Your task to perform on an android device: open app "Roku - Official Remote Control" (install if not already installed) and enter user name: "autumnal@gmail.com" and password: "stuffing" Image 0: 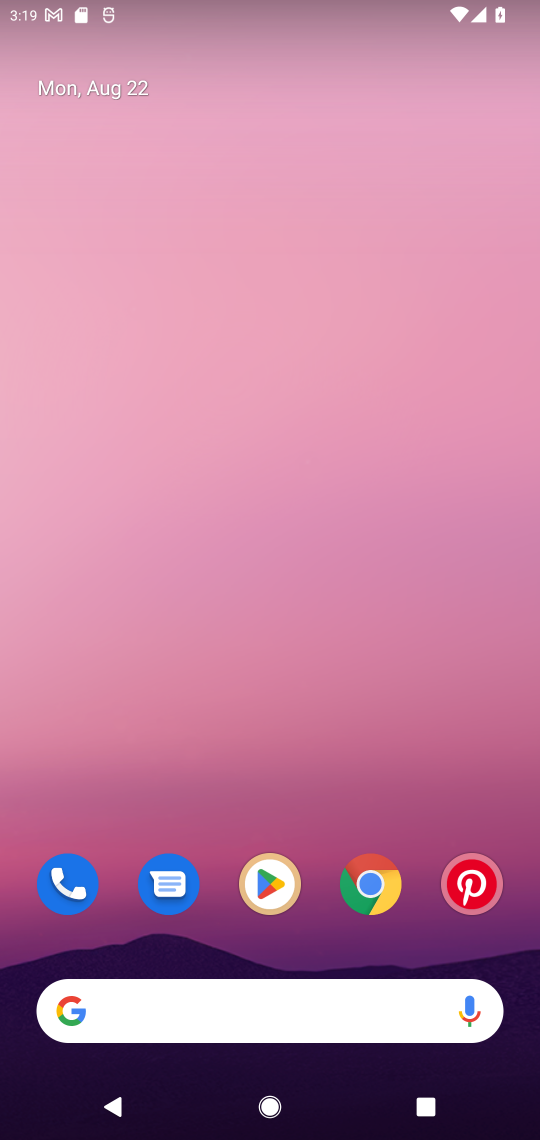
Step 0: click (267, 900)
Your task to perform on an android device: open app "Roku - Official Remote Control" (install if not already installed) and enter user name: "autumnal@gmail.com" and password: "stuffing" Image 1: 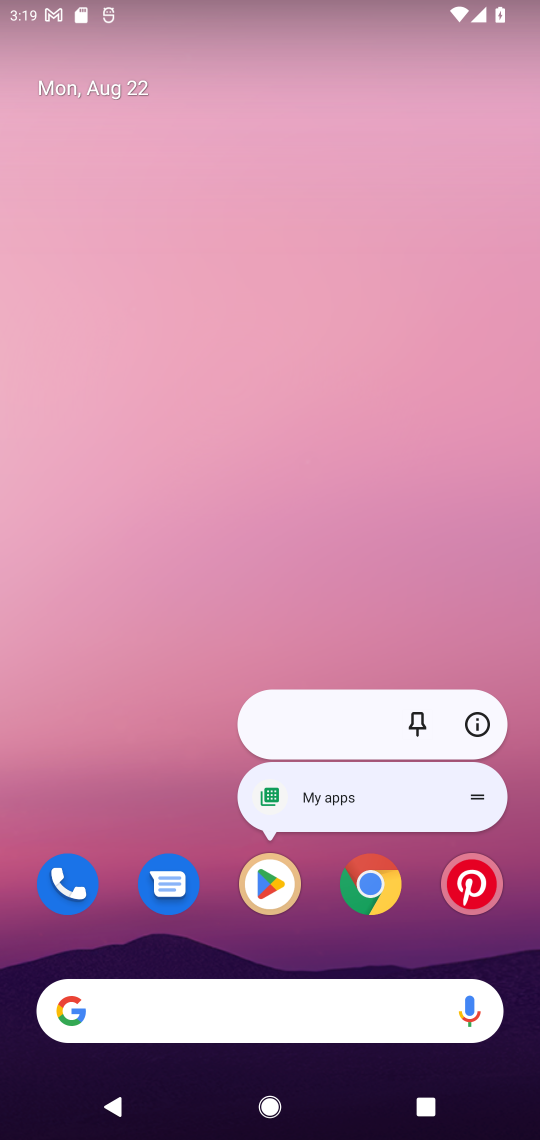
Step 1: click (264, 906)
Your task to perform on an android device: open app "Roku - Official Remote Control" (install if not already installed) and enter user name: "autumnal@gmail.com" and password: "stuffing" Image 2: 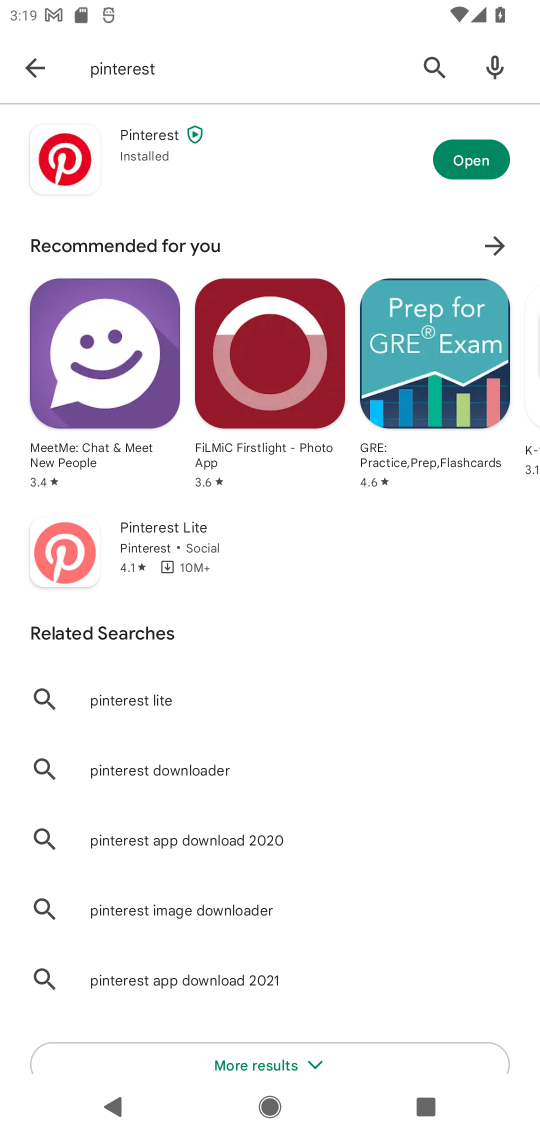
Step 2: click (183, 58)
Your task to perform on an android device: open app "Roku - Official Remote Control" (install if not already installed) and enter user name: "autumnal@gmail.com" and password: "stuffing" Image 3: 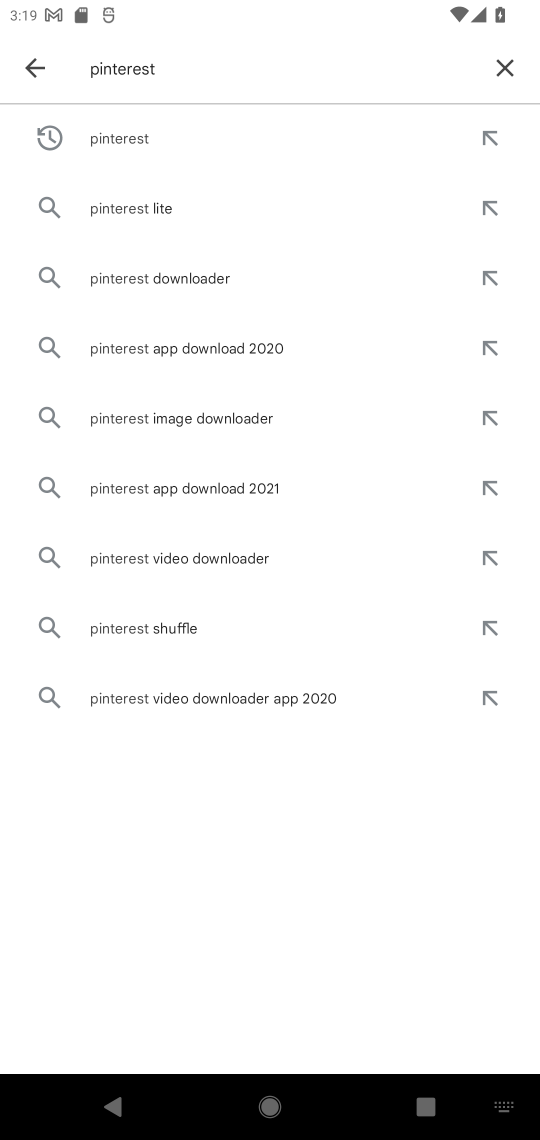
Step 3: click (498, 67)
Your task to perform on an android device: open app "Roku - Official Remote Control" (install if not already installed) and enter user name: "autumnal@gmail.com" and password: "stuffing" Image 4: 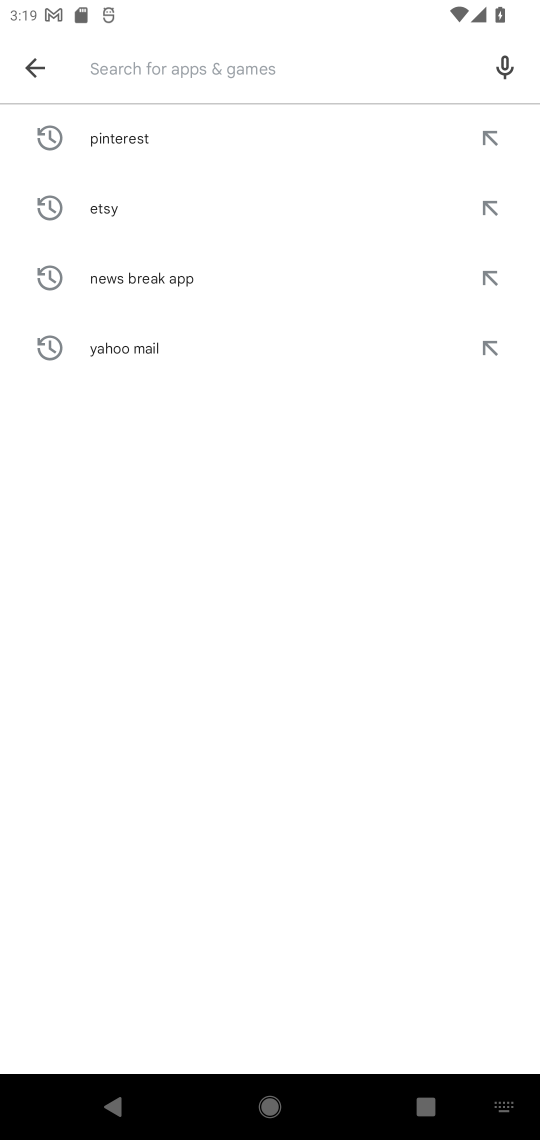
Step 4: type "Roku"
Your task to perform on an android device: open app "Roku - Official Remote Control" (install if not already installed) and enter user name: "autumnal@gmail.com" and password: "stuffing" Image 5: 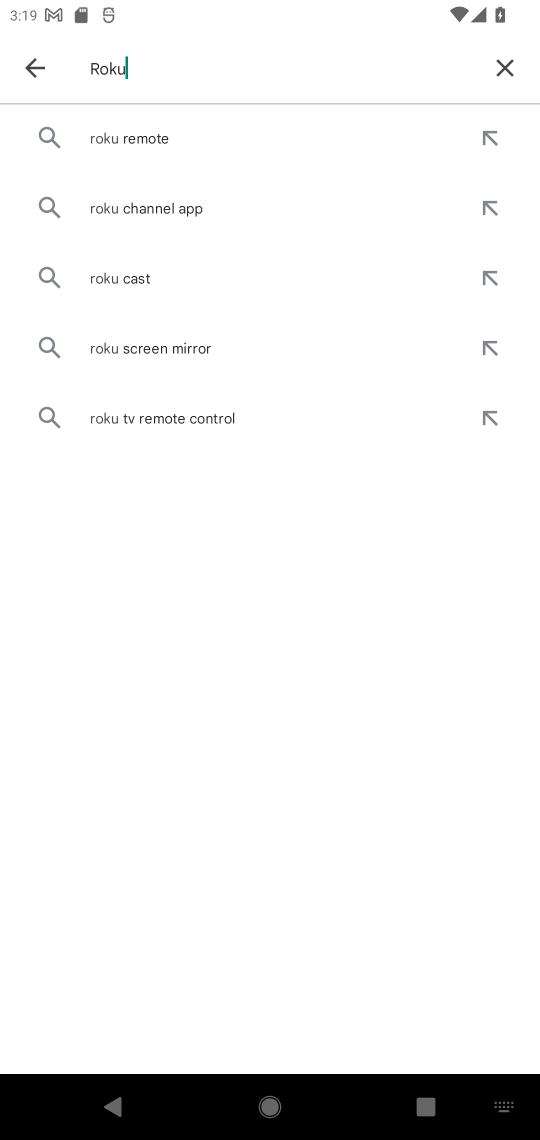
Step 5: click (161, 134)
Your task to perform on an android device: open app "Roku - Official Remote Control" (install if not already installed) and enter user name: "autumnal@gmail.com" and password: "stuffing" Image 6: 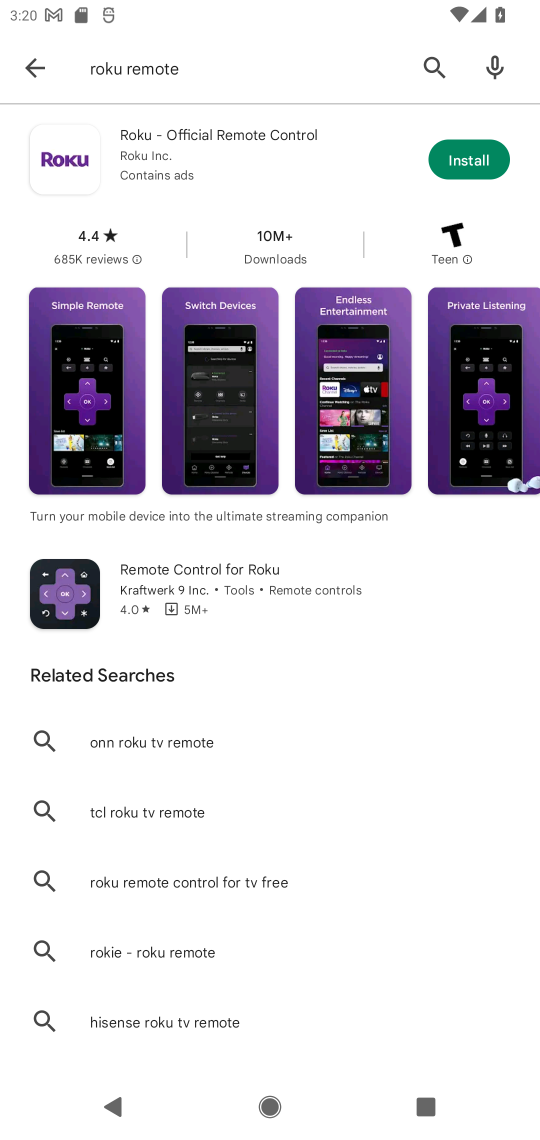
Step 6: click (470, 158)
Your task to perform on an android device: open app "Roku - Official Remote Control" (install if not already installed) and enter user name: "autumnal@gmail.com" and password: "stuffing" Image 7: 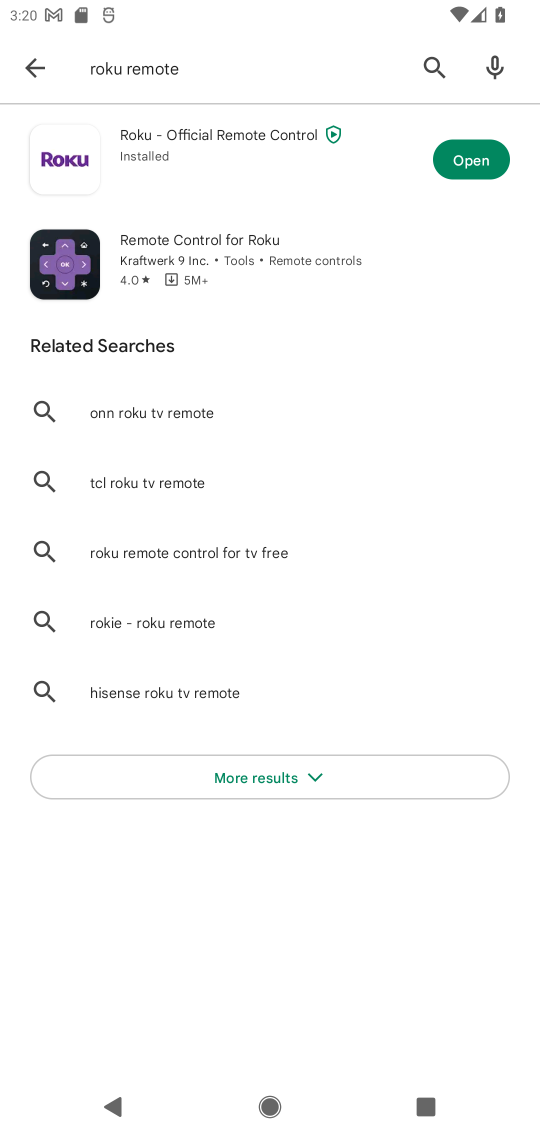
Step 7: click (456, 157)
Your task to perform on an android device: open app "Roku - Official Remote Control" (install if not already installed) and enter user name: "autumnal@gmail.com" and password: "stuffing" Image 8: 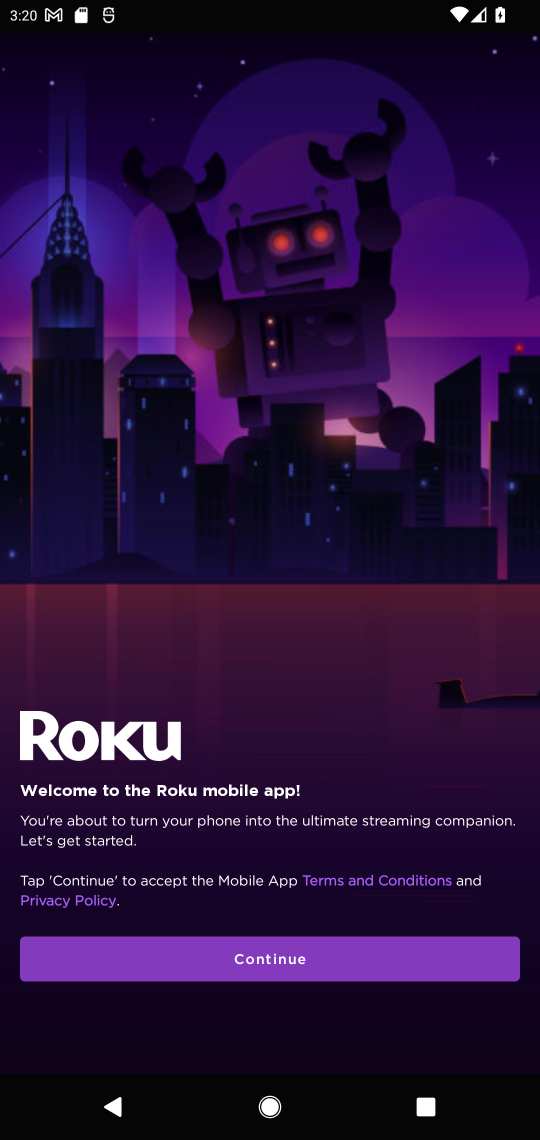
Step 8: click (324, 963)
Your task to perform on an android device: open app "Roku - Official Remote Control" (install if not already installed) and enter user name: "autumnal@gmail.com" and password: "stuffing" Image 9: 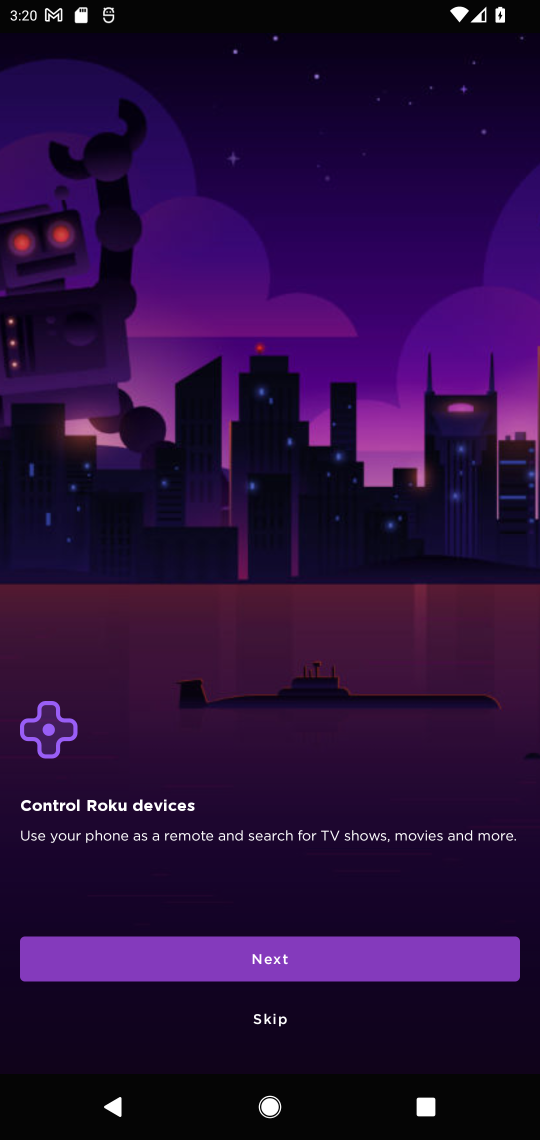
Step 9: click (331, 965)
Your task to perform on an android device: open app "Roku - Official Remote Control" (install if not already installed) and enter user name: "autumnal@gmail.com" and password: "stuffing" Image 10: 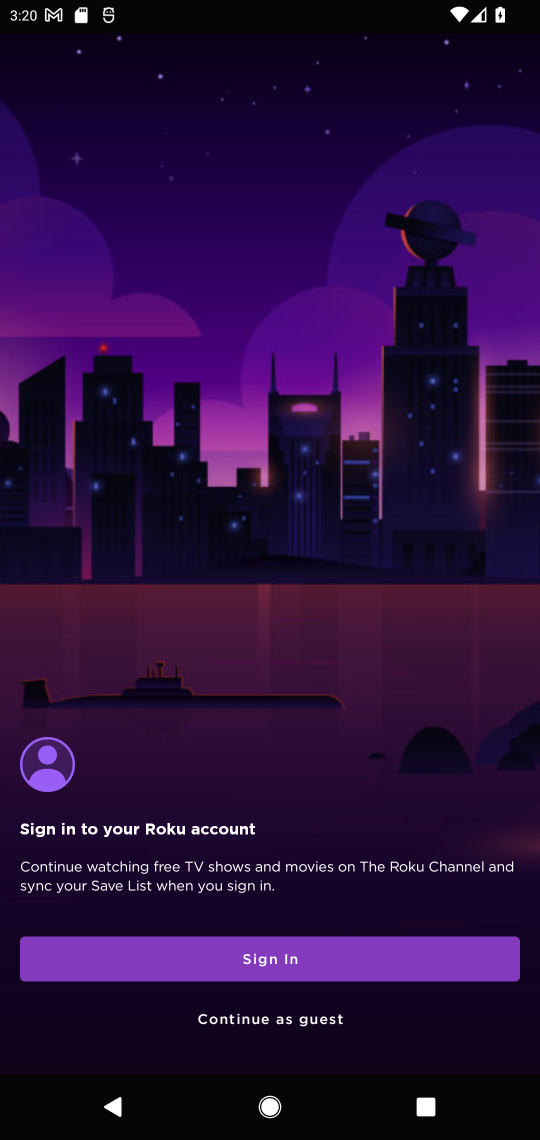
Step 10: click (321, 963)
Your task to perform on an android device: open app "Roku - Official Remote Control" (install if not already installed) and enter user name: "autumnal@gmail.com" and password: "stuffing" Image 11: 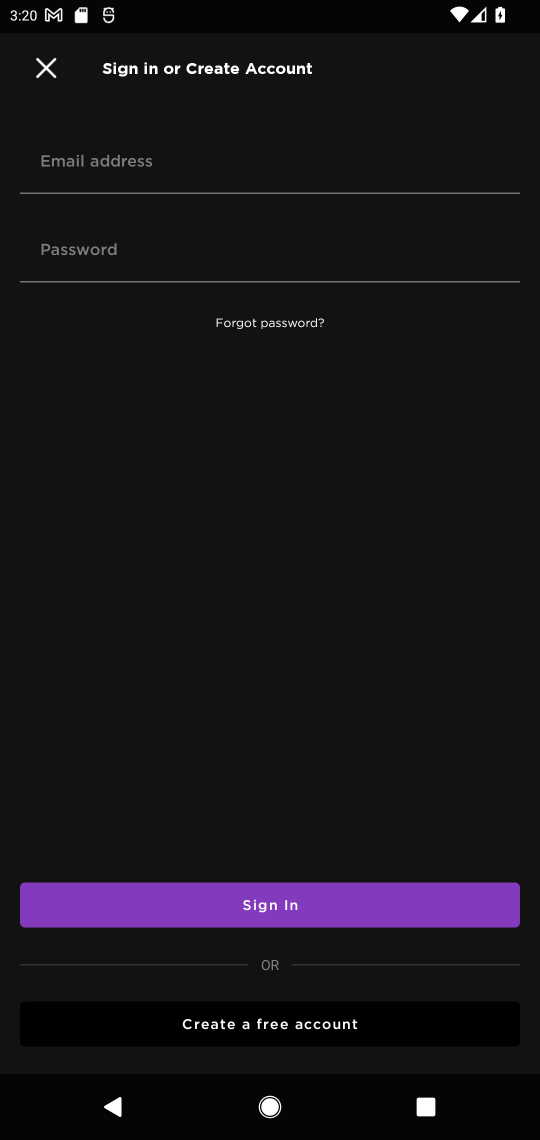
Step 11: click (187, 146)
Your task to perform on an android device: open app "Roku - Official Remote Control" (install if not already installed) and enter user name: "autumnal@gmail.com" and password: "stuffing" Image 12: 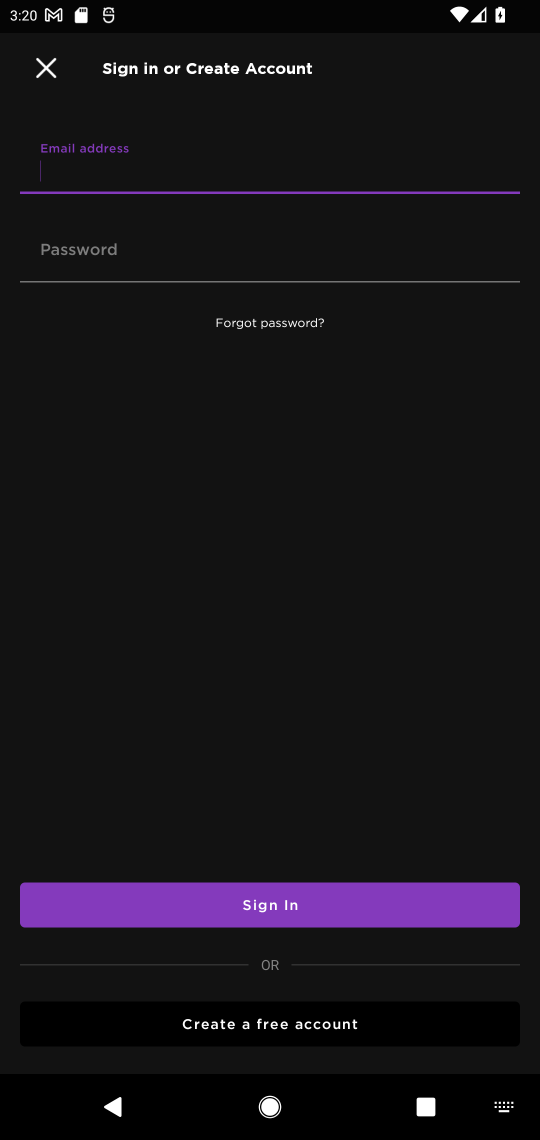
Step 12: type "autumnal@gmail.com"
Your task to perform on an android device: open app "Roku - Official Remote Control" (install if not already installed) and enter user name: "autumnal@gmail.com" and password: "stuffing" Image 13: 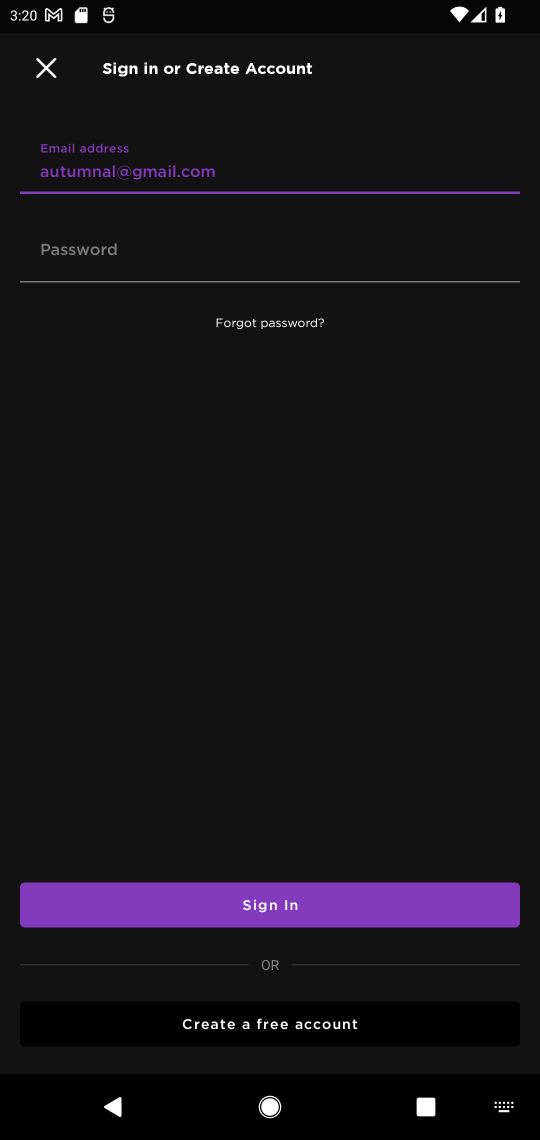
Step 13: click (176, 259)
Your task to perform on an android device: open app "Roku - Official Remote Control" (install if not already installed) and enter user name: "autumnal@gmail.com" and password: "stuffing" Image 14: 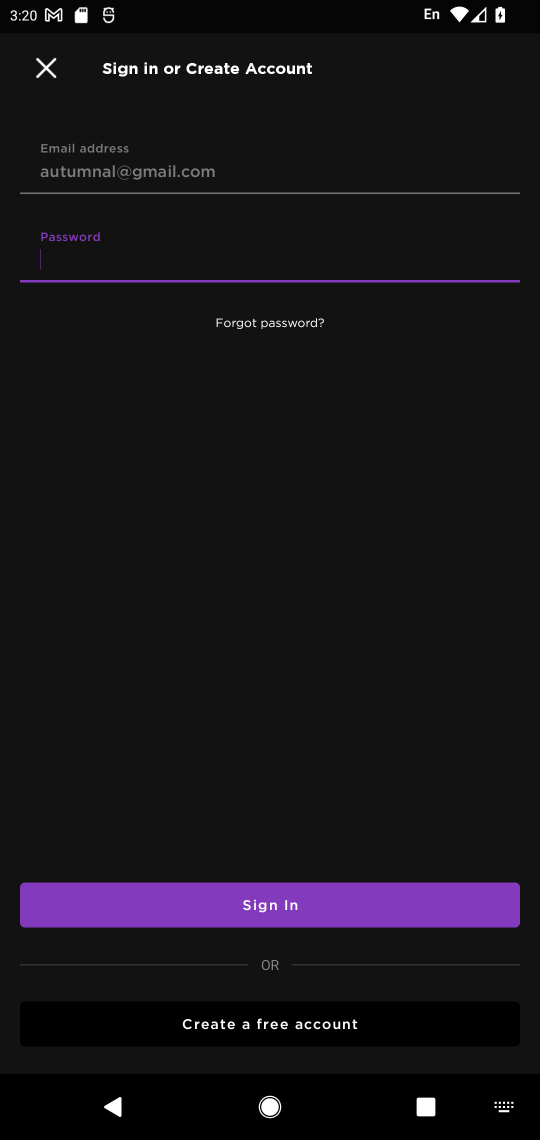
Step 14: type "stuffing"
Your task to perform on an android device: open app "Roku - Official Remote Control" (install if not already installed) and enter user name: "autumnal@gmail.com" and password: "stuffing" Image 15: 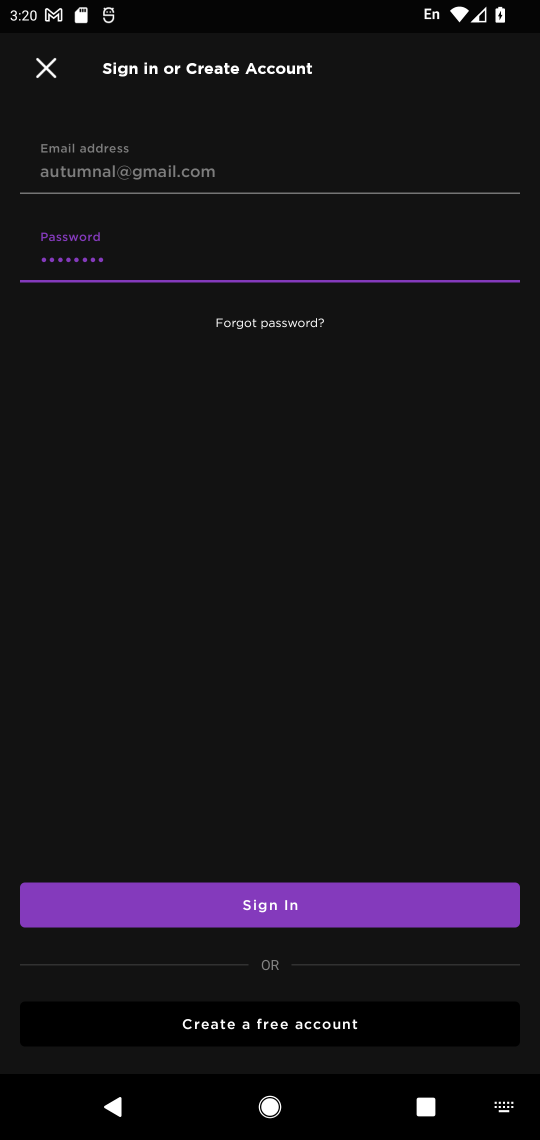
Step 15: click (367, 906)
Your task to perform on an android device: open app "Roku - Official Remote Control" (install if not already installed) and enter user name: "autumnal@gmail.com" and password: "stuffing" Image 16: 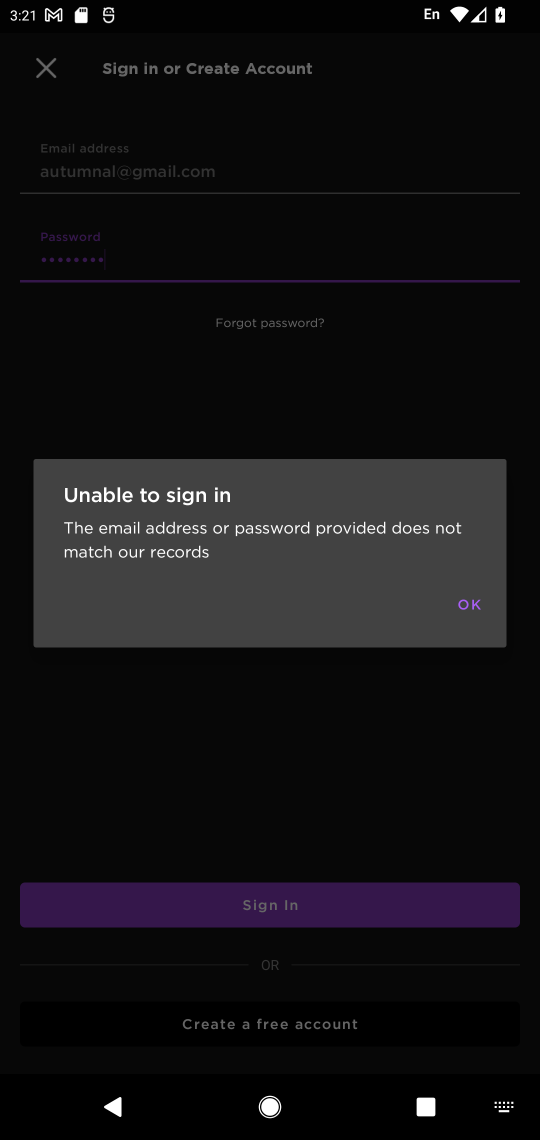
Step 16: click (468, 606)
Your task to perform on an android device: open app "Roku - Official Remote Control" (install if not already installed) and enter user name: "autumnal@gmail.com" and password: "stuffing" Image 17: 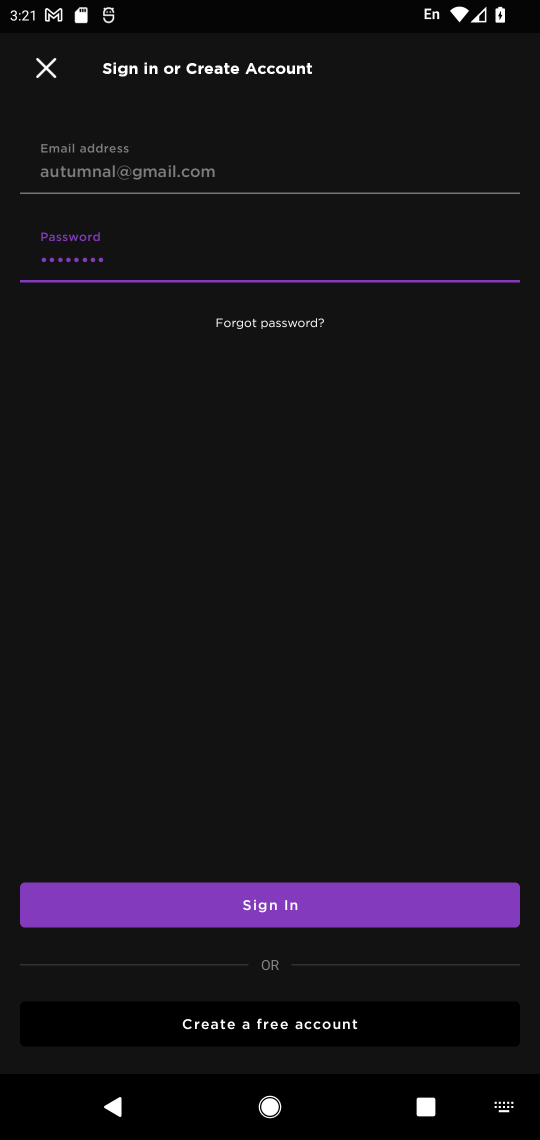
Step 17: task complete